Your task to perform on an android device: Go to calendar. Show me events next week Image 0: 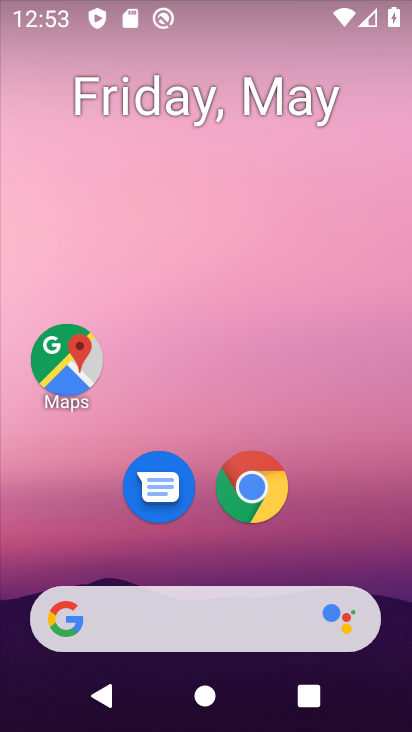
Step 0: click (128, 73)
Your task to perform on an android device: Go to calendar. Show me events next week Image 1: 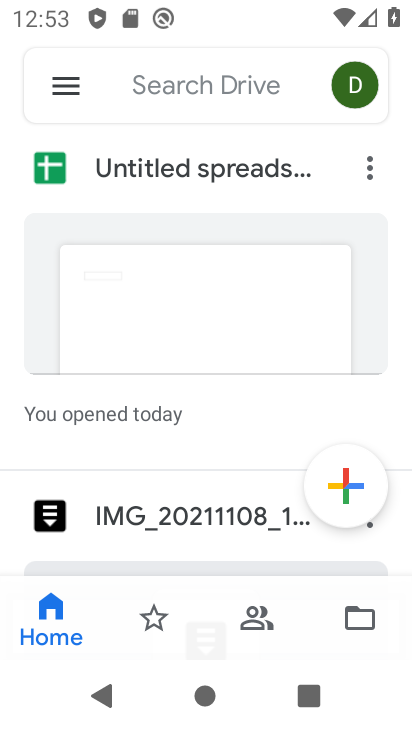
Step 1: press home button
Your task to perform on an android device: Go to calendar. Show me events next week Image 2: 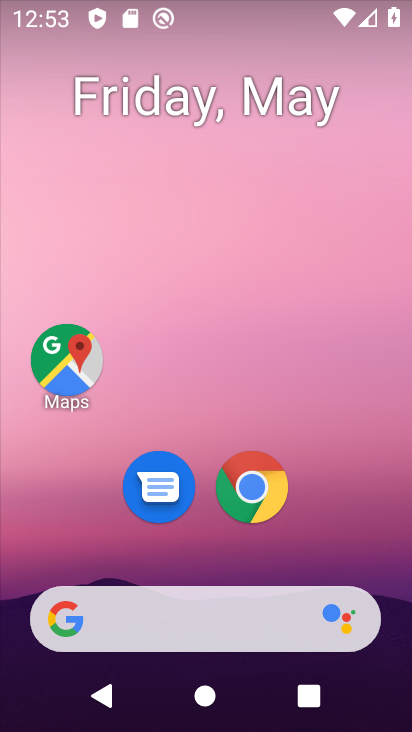
Step 2: click (210, 94)
Your task to perform on an android device: Go to calendar. Show me events next week Image 3: 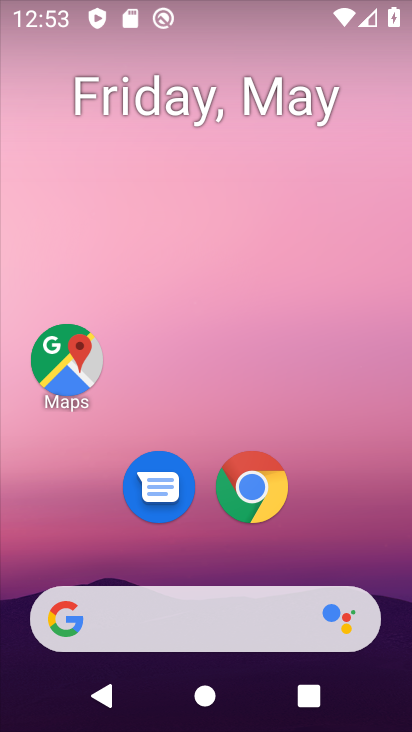
Step 3: click (210, 94)
Your task to perform on an android device: Go to calendar. Show me events next week Image 4: 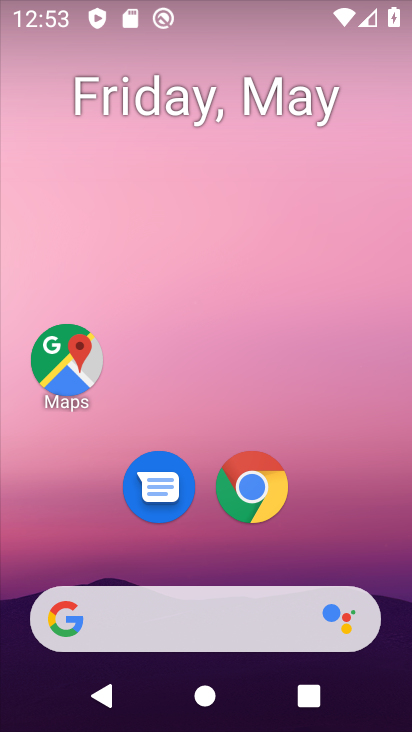
Step 4: click (210, 94)
Your task to perform on an android device: Go to calendar. Show me events next week Image 5: 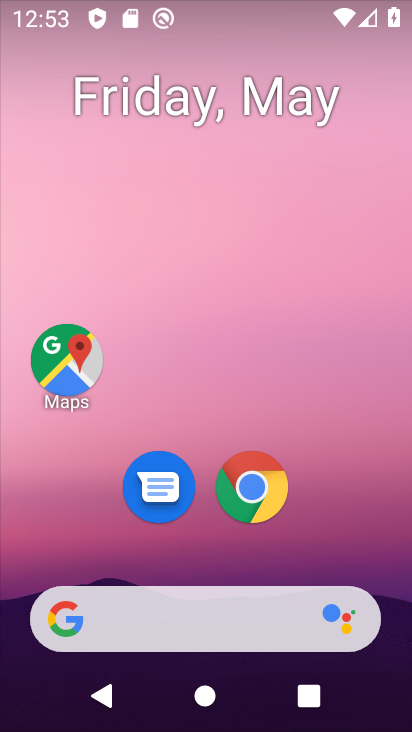
Step 5: click (197, 92)
Your task to perform on an android device: Go to calendar. Show me events next week Image 6: 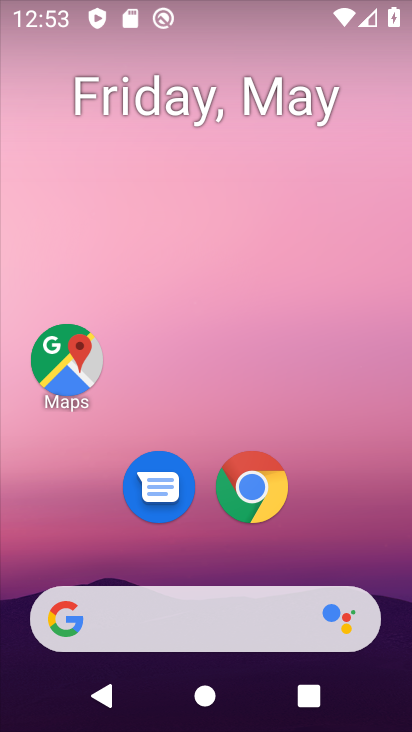
Step 6: click (197, 92)
Your task to perform on an android device: Go to calendar. Show me events next week Image 7: 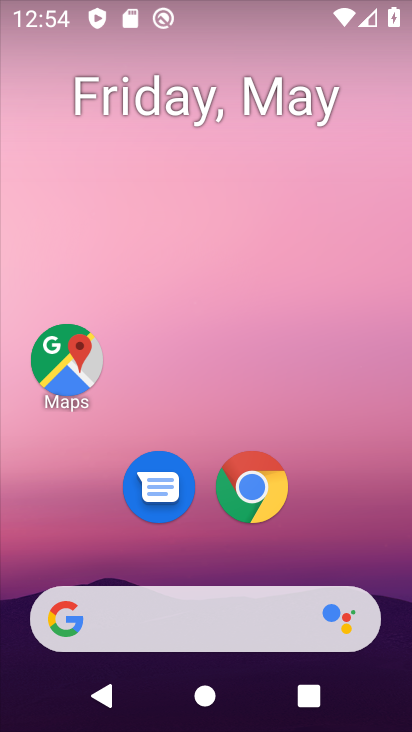
Step 7: click (197, 92)
Your task to perform on an android device: Go to calendar. Show me events next week Image 8: 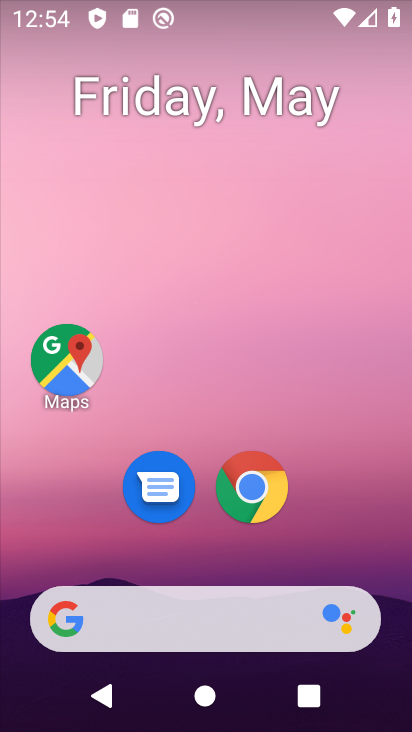
Step 8: click (178, 100)
Your task to perform on an android device: Go to calendar. Show me events next week Image 9: 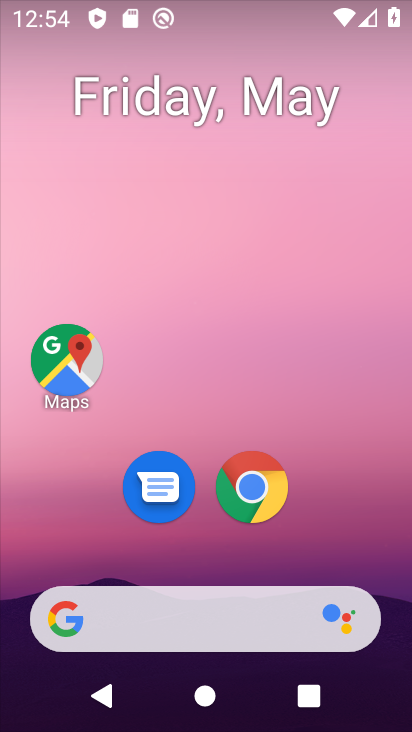
Step 9: drag from (200, 540) to (267, 84)
Your task to perform on an android device: Go to calendar. Show me events next week Image 10: 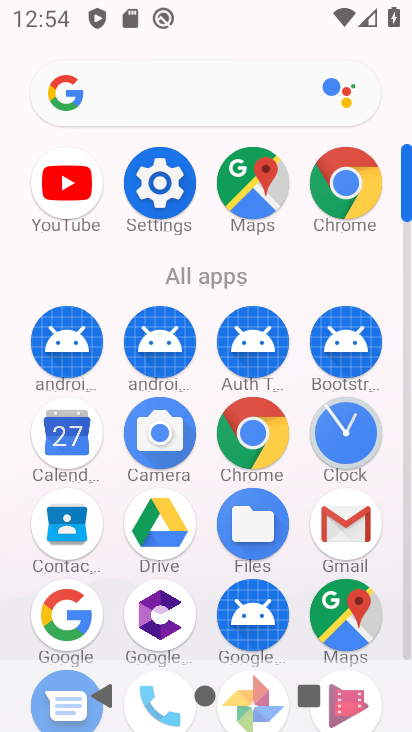
Step 10: click (70, 447)
Your task to perform on an android device: Go to calendar. Show me events next week Image 11: 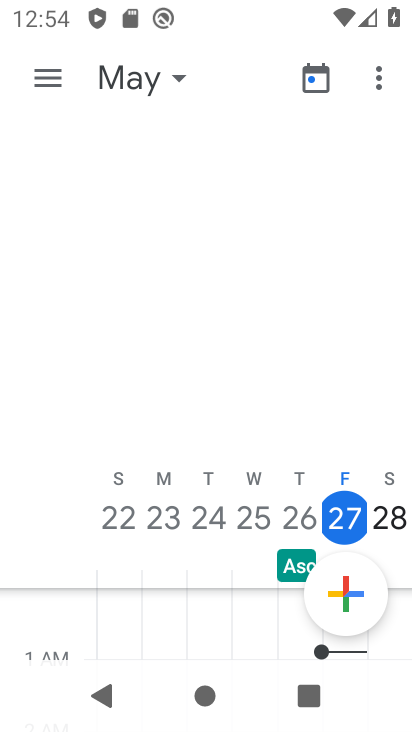
Step 11: click (169, 67)
Your task to perform on an android device: Go to calendar. Show me events next week Image 12: 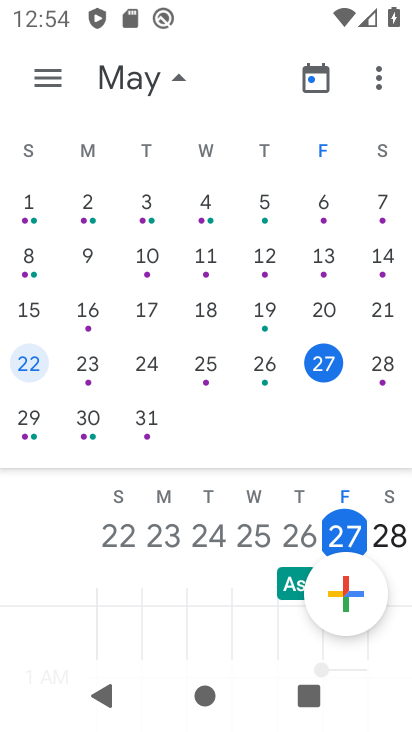
Step 12: click (82, 413)
Your task to perform on an android device: Go to calendar. Show me events next week Image 13: 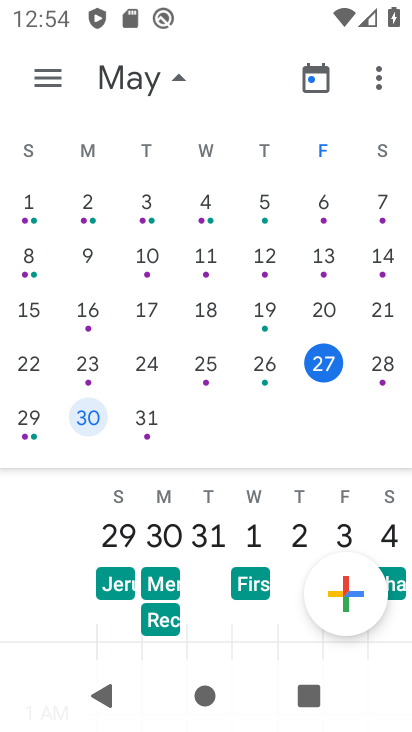
Step 13: task complete